Your task to perform on an android device: refresh tabs in the chrome app Image 0: 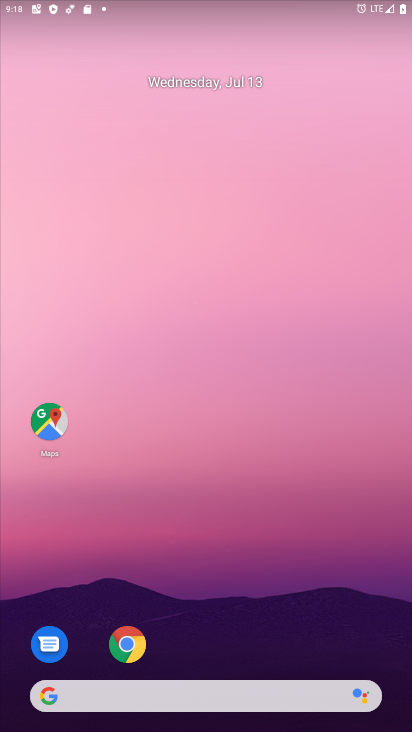
Step 0: drag from (223, 723) to (222, 184)
Your task to perform on an android device: refresh tabs in the chrome app Image 1: 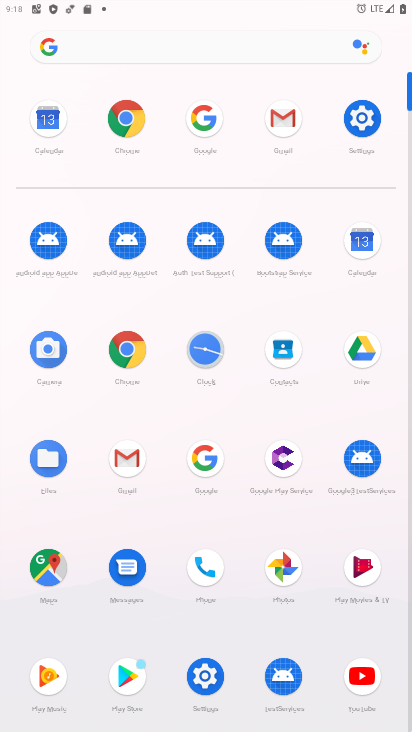
Step 1: click (125, 349)
Your task to perform on an android device: refresh tabs in the chrome app Image 2: 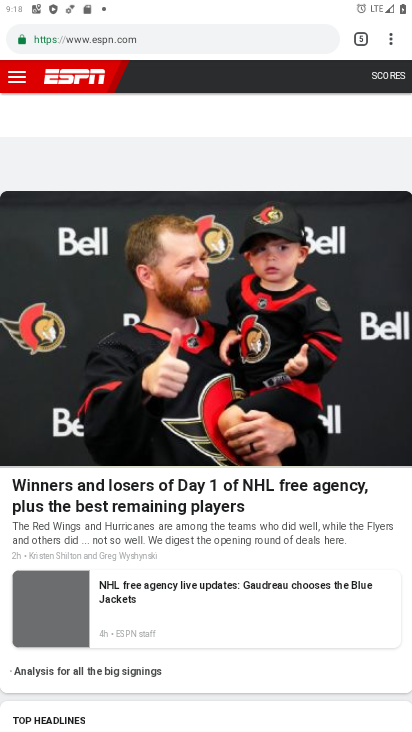
Step 2: click (391, 41)
Your task to perform on an android device: refresh tabs in the chrome app Image 3: 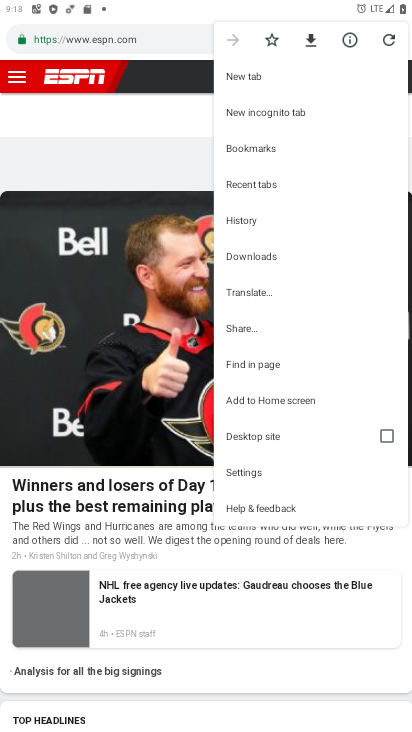
Step 3: click (387, 34)
Your task to perform on an android device: refresh tabs in the chrome app Image 4: 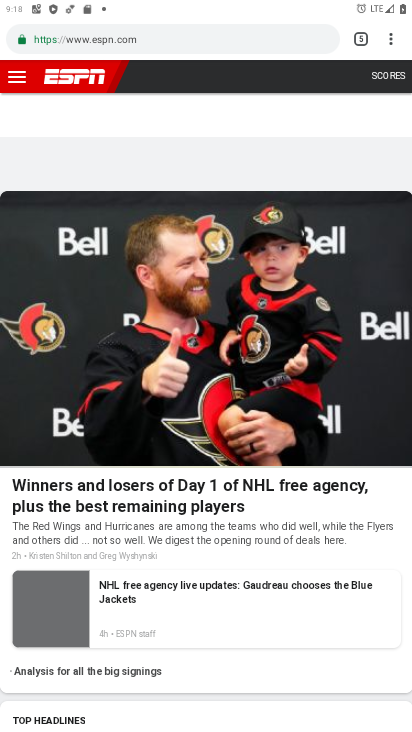
Step 4: task complete